Your task to perform on an android device: Open notification settings Image 0: 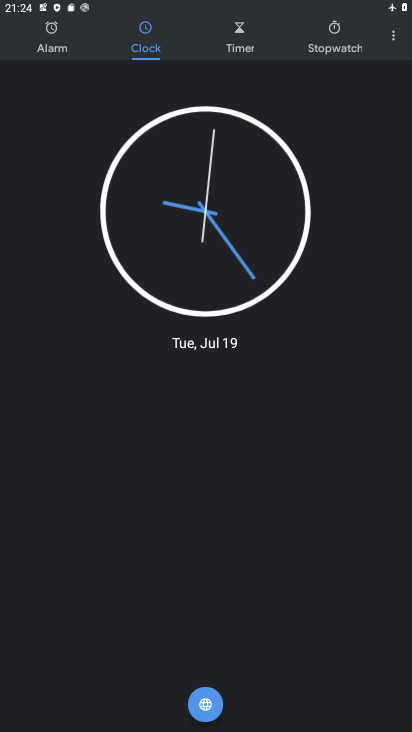
Step 0: press home button
Your task to perform on an android device: Open notification settings Image 1: 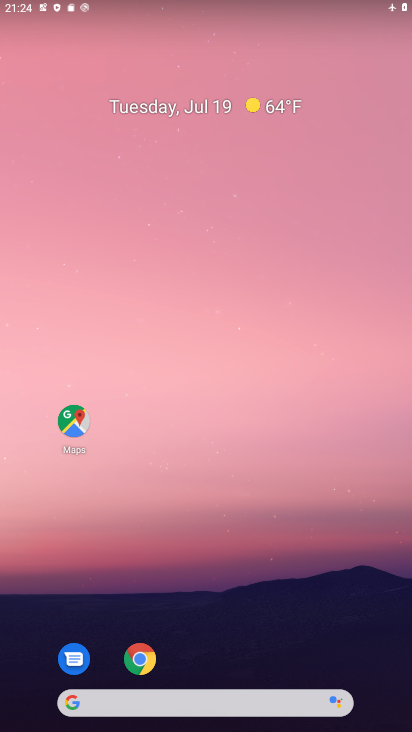
Step 1: drag from (178, 668) to (174, 124)
Your task to perform on an android device: Open notification settings Image 2: 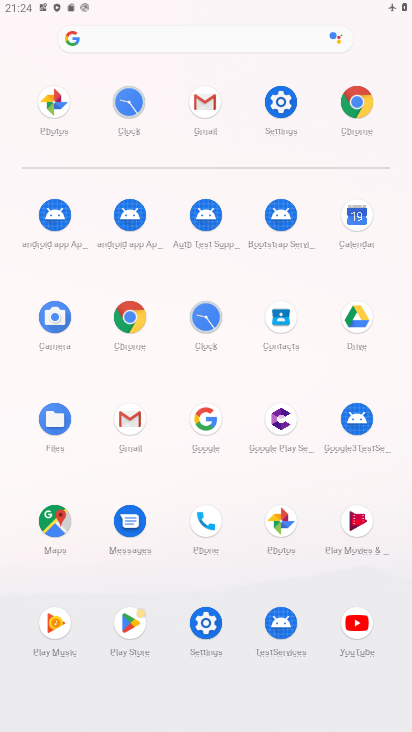
Step 2: click (283, 98)
Your task to perform on an android device: Open notification settings Image 3: 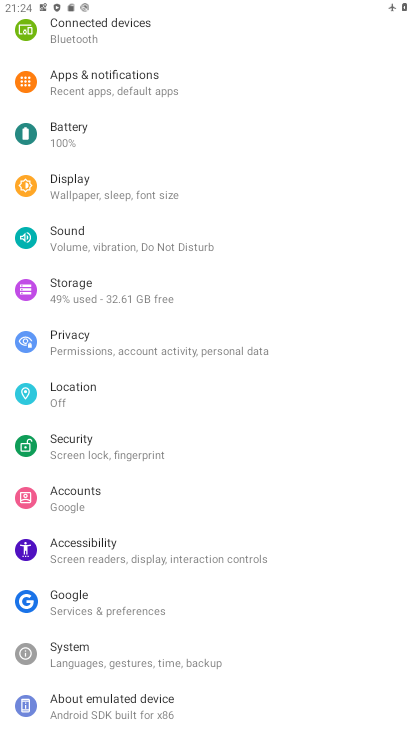
Step 3: click (160, 98)
Your task to perform on an android device: Open notification settings Image 4: 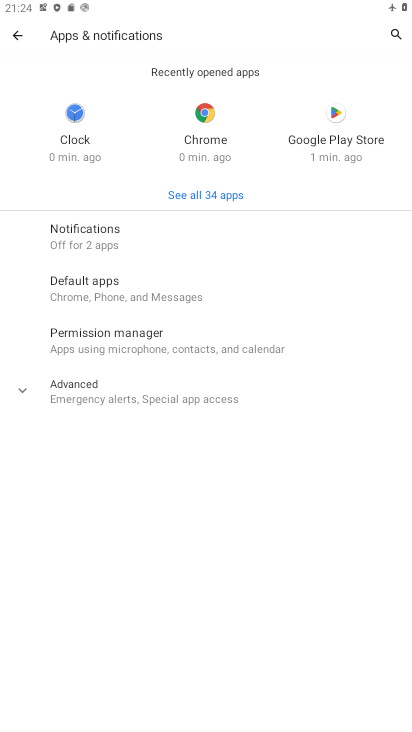
Step 4: task complete